Your task to perform on an android device: toggle translation in the chrome app Image 0: 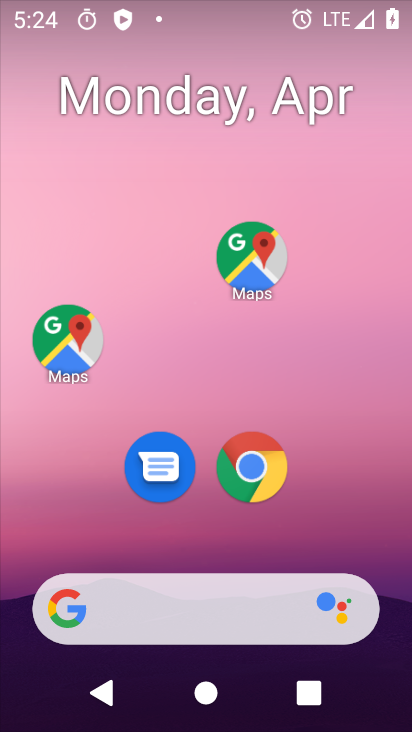
Step 0: drag from (265, 547) to (302, 3)
Your task to perform on an android device: toggle translation in the chrome app Image 1: 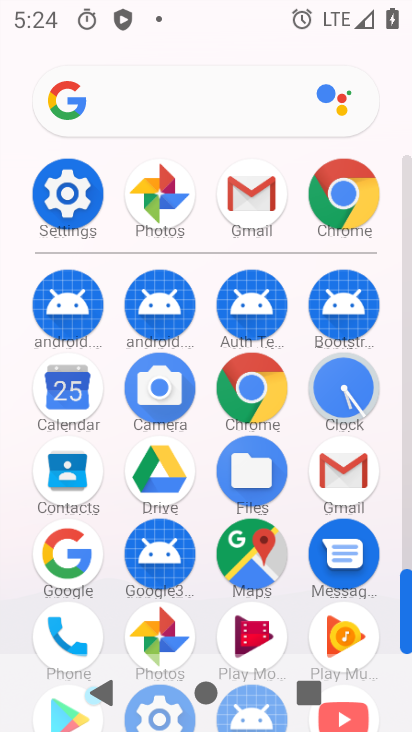
Step 1: click (258, 385)
Your task to perform on an android device: toggle translation in the chrome app Image 2: 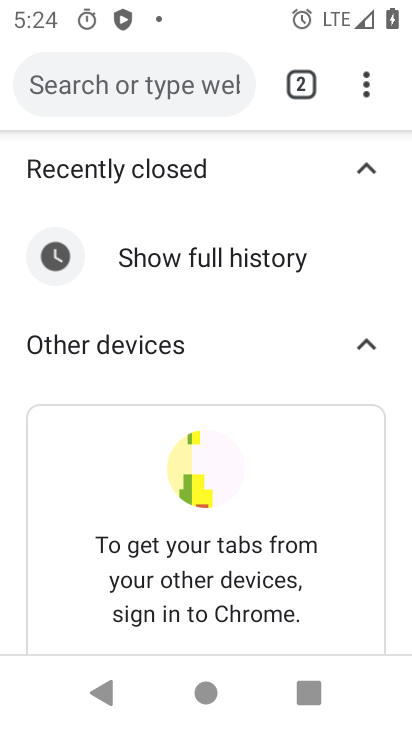
Step 2: drag from (365, 79) to (230, 524)
Your task to perform on an android device: toggle translation in the chrome app Image 3: 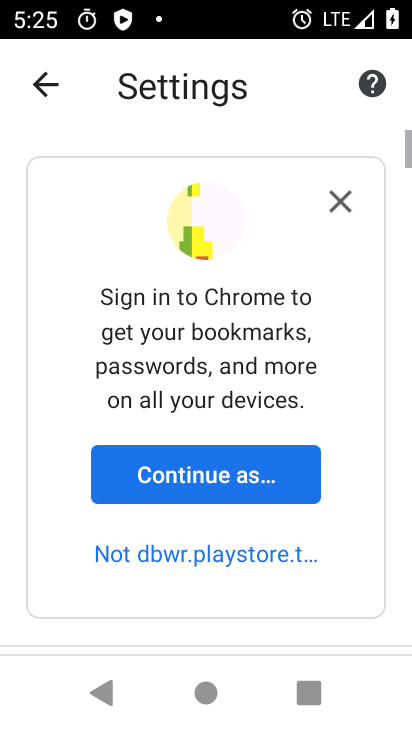
Step 3: drag from (233, 629) to (265, 52)
Your task to perform on an android device: toggle translation in the chrome app Image 4: 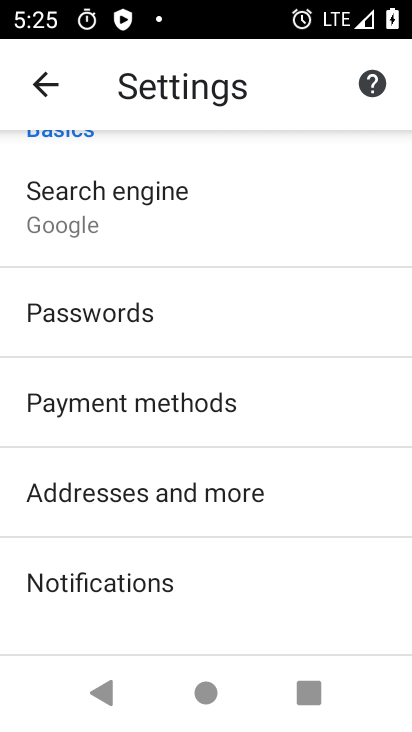
Step 4: drag from (246, 563) to (282, 123)
Your task to perform on an android device: toggle translation in the chrome app Image 5: 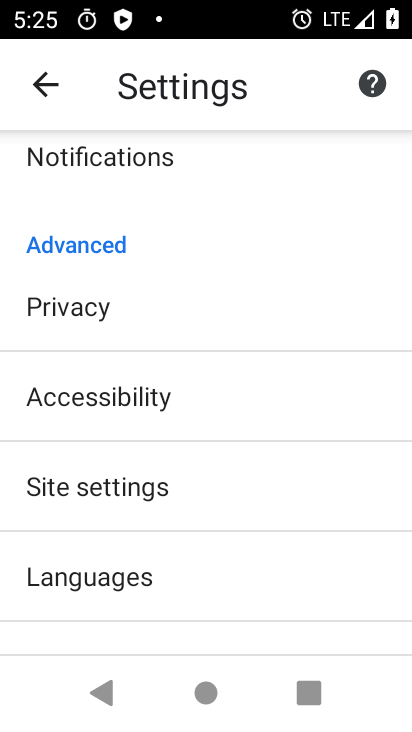
Step 5: click (143, 573)
Your task to perform on an android device: toggle translation in the chrome app Image 6: 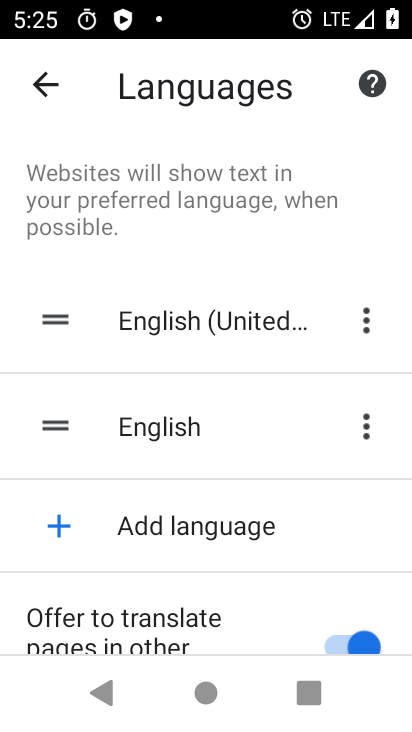
Step 6: click (335, 646)
Your task to perform on an android device: toggle translation in the chrome app Image 7: 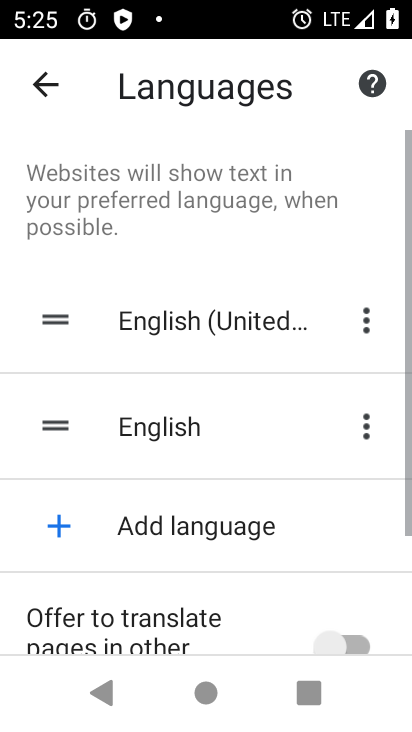
Step 7: task complete